Your task to perform on an android device: How much does a 2 bedroom apartment rent for in Philadelphia? Image 0: 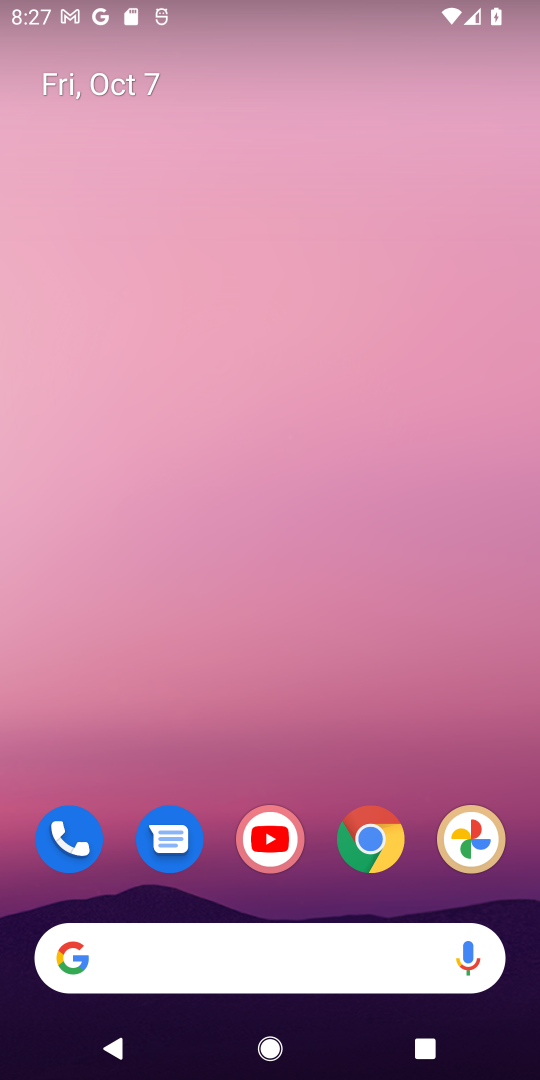
Step 0: click (373, 834)
Your task to perform on an android device: How much does a 2 bedroom apartment rent for in Philadelphia? Image 1: 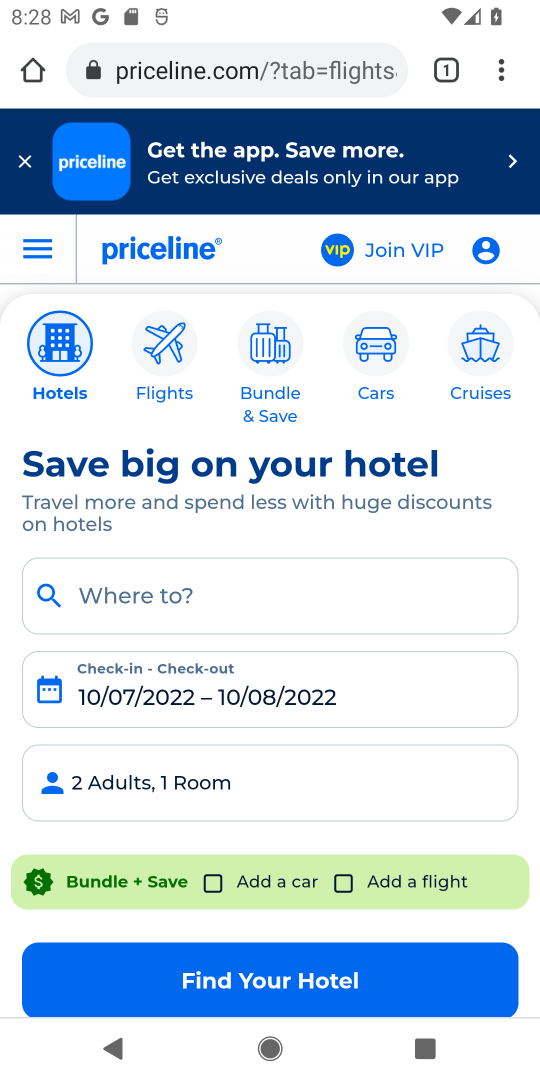
Step 1: click (222, 68)
Your task to perform on an android device: How much does a 2 bedroom apartment rent for in Philadelphia? Image 2: 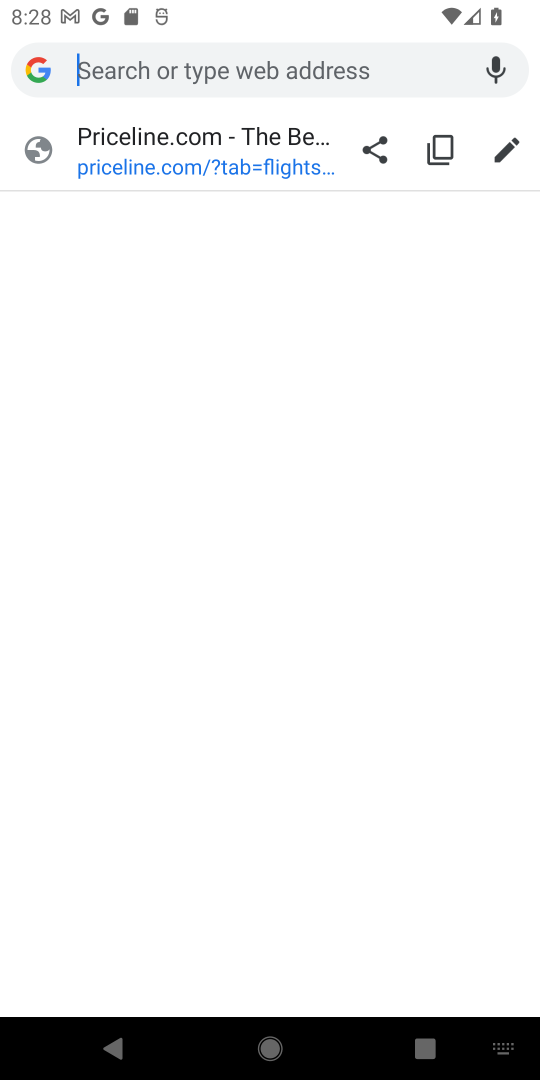
Step 2: type "2 bedroom apartment rent for in philadelphia"
Your task to perform on an android device: How much does a 2 bedroom apartment rent for in Philadelphia? Image 3: 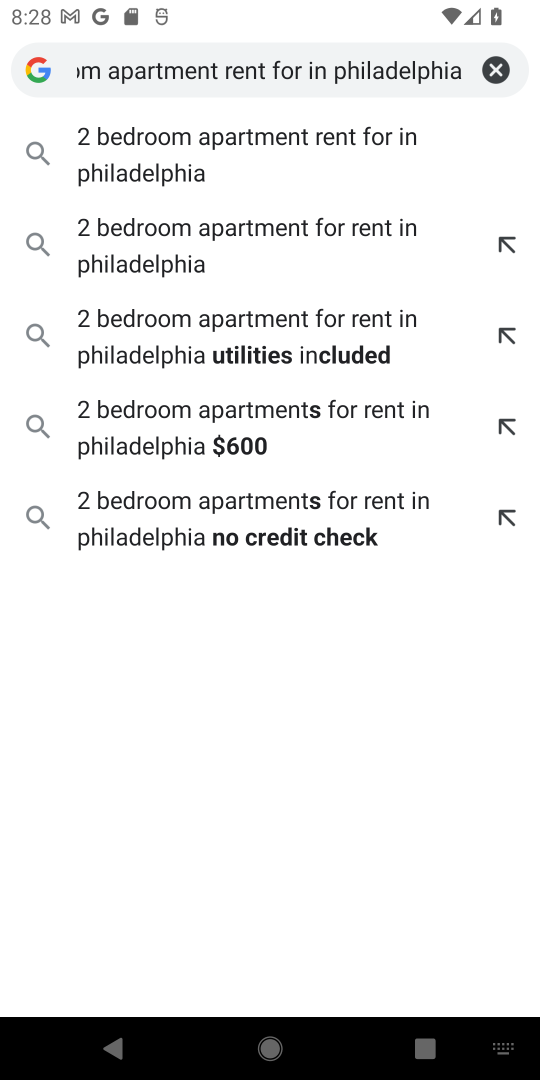
Step 3: click (132, 167)
Your task to perform on an android device: How much does a 2 bedroom apartment rent for in Philadelphia? Image 4: 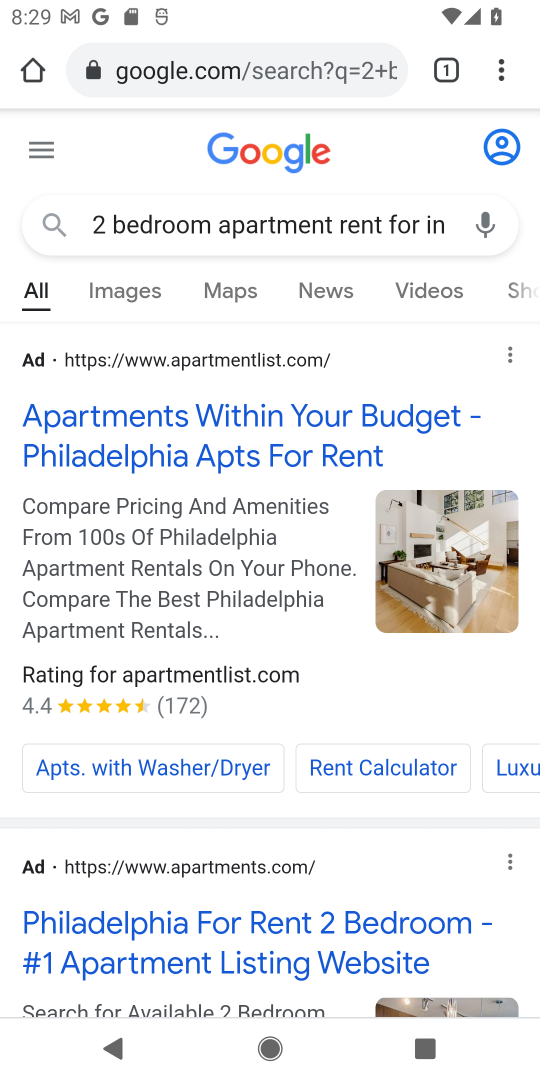
Step 4: click (140, 915)
Your task to perform on an android device: How much does a 2 bedroom apartment rent for in Philadelphia? Image 5: 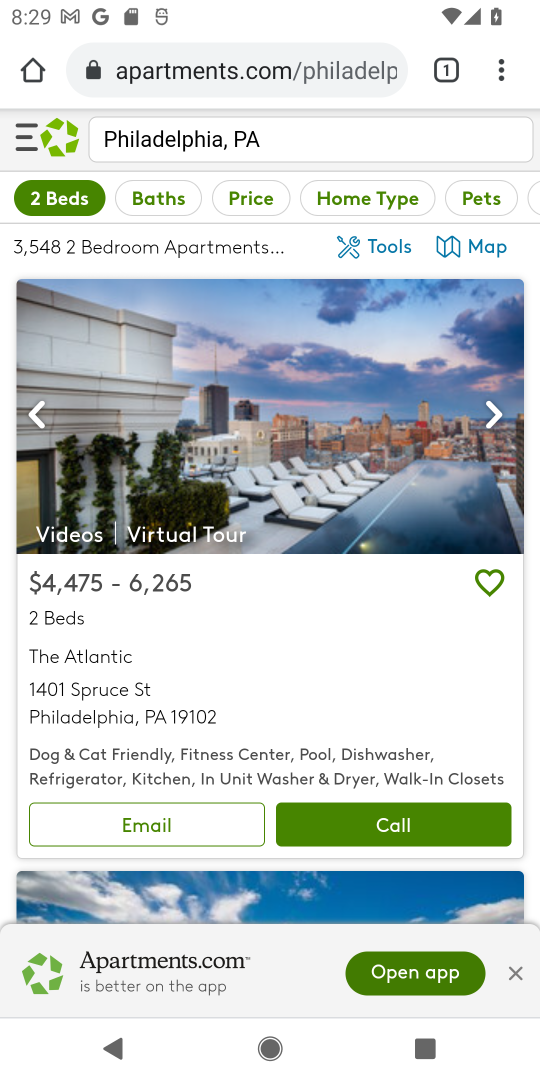
Step 5: drag from (351, 595) to (424, 256)
Your task to perform on an android device: How much does a 2 bedroom apartment rent for in Philadelphia? Image 6: 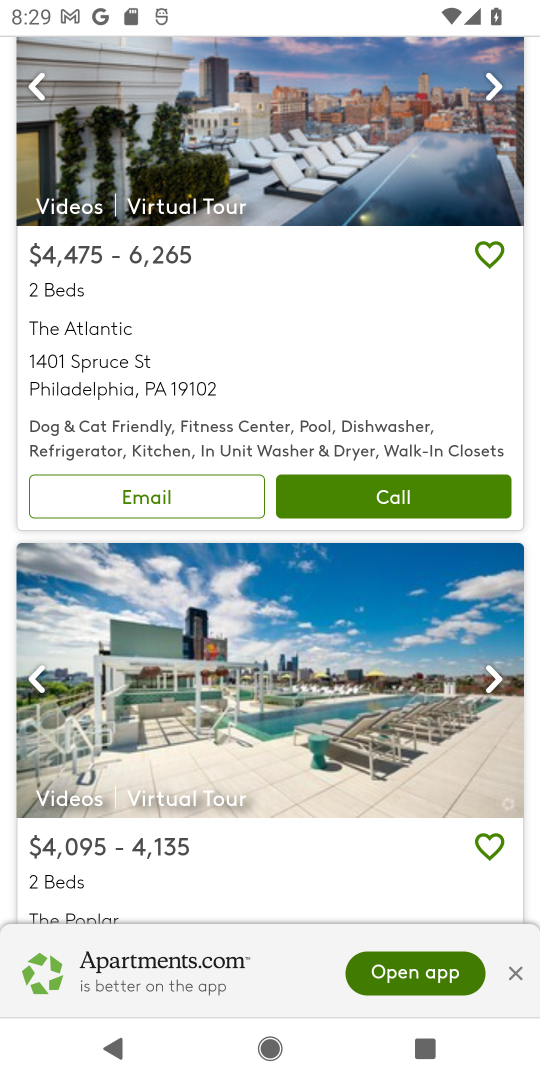
Step 6: drag from (199, 742) to (302, 238)
Your task to perform on an android device: How much does a 2 bedroom apartment rent for in Philadelphia? Image 7: 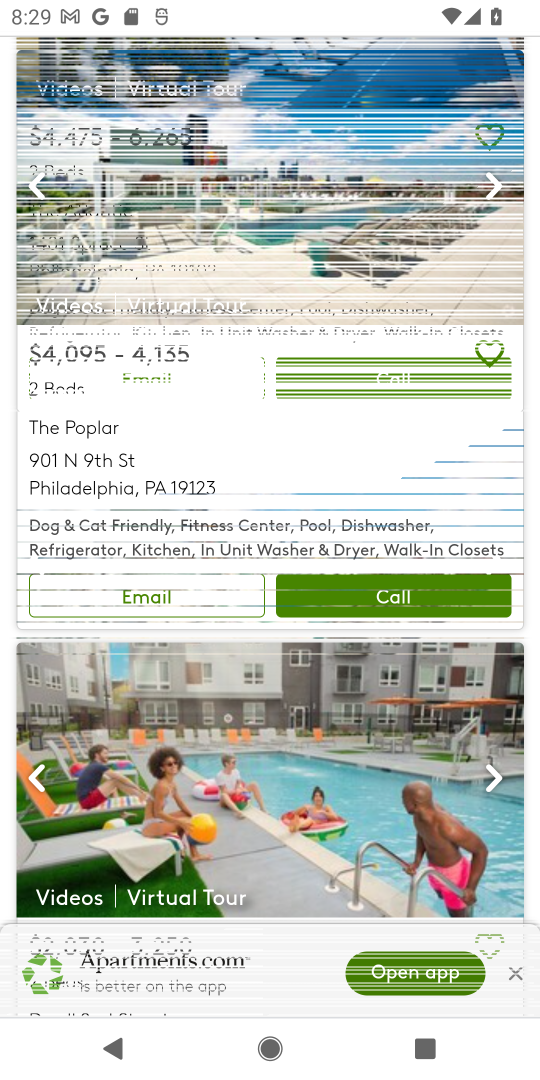
Step 7: drag from (171, 705) to (260, 366)
Your task to perform on an android device: How much does a 2 bedroom apartment rent for in Philadelphia? Image 8: 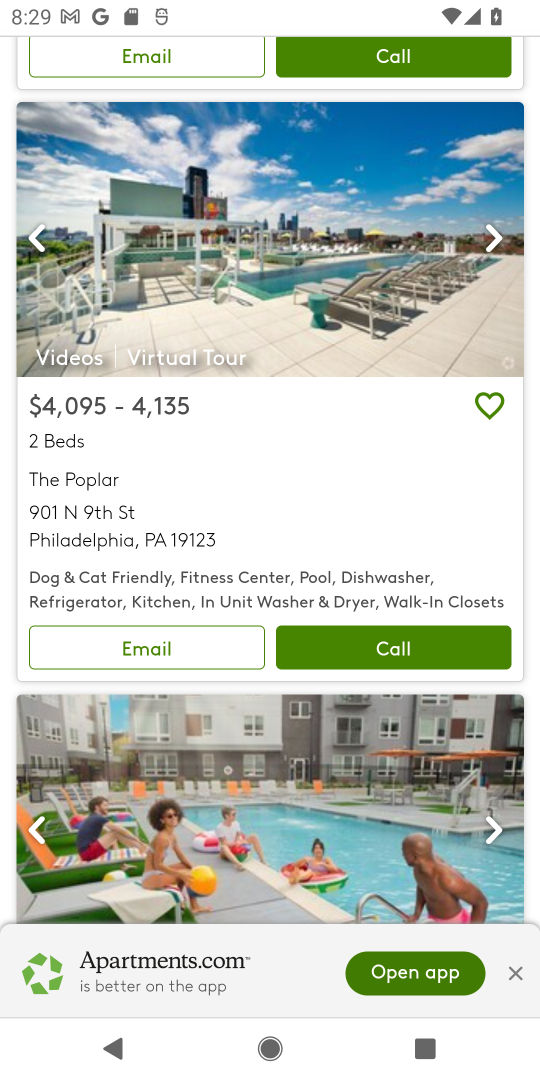
Step 8: drag from (190, 777) to (365, 252)
Your task to perform on an android device: How much does a 2 bedroom apartment rent for in Philadelphia? Image 9: 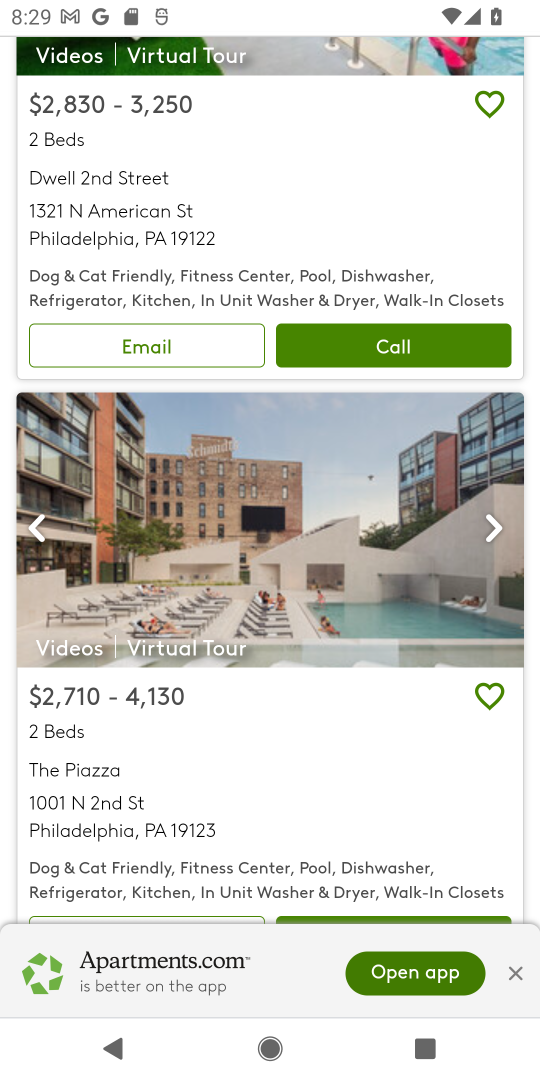
Step 9: drag from (98, 822) to (251, 340)
Your task to perform on an android device: How much does a 2 bedroom apartment rent for in Philadelphia? Image 10: 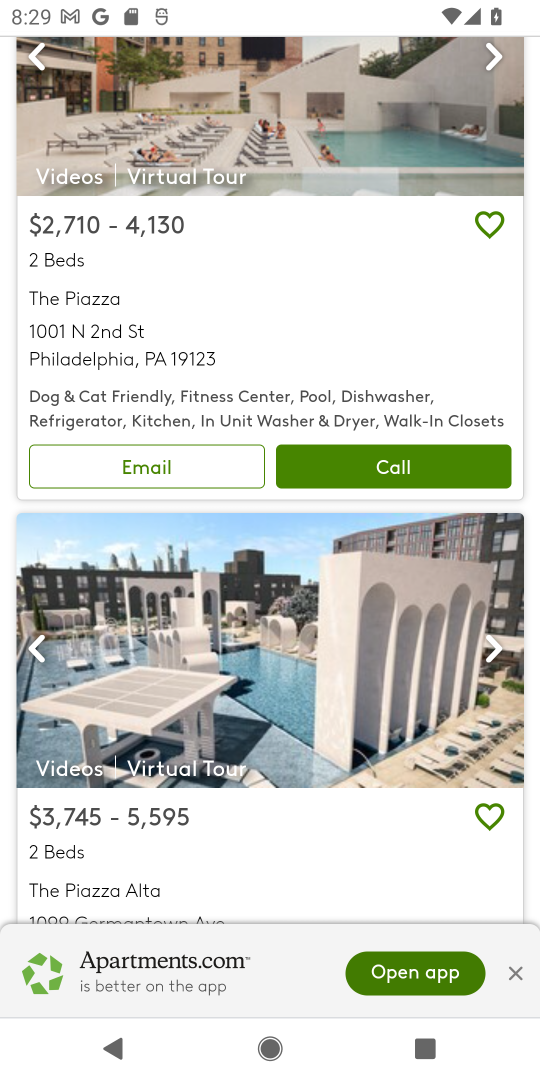
Step 10: click (516, 973)
Your task to perform on an android device: How much does a 2 bedroom apartment rent for in Philadelphia? Image 11: 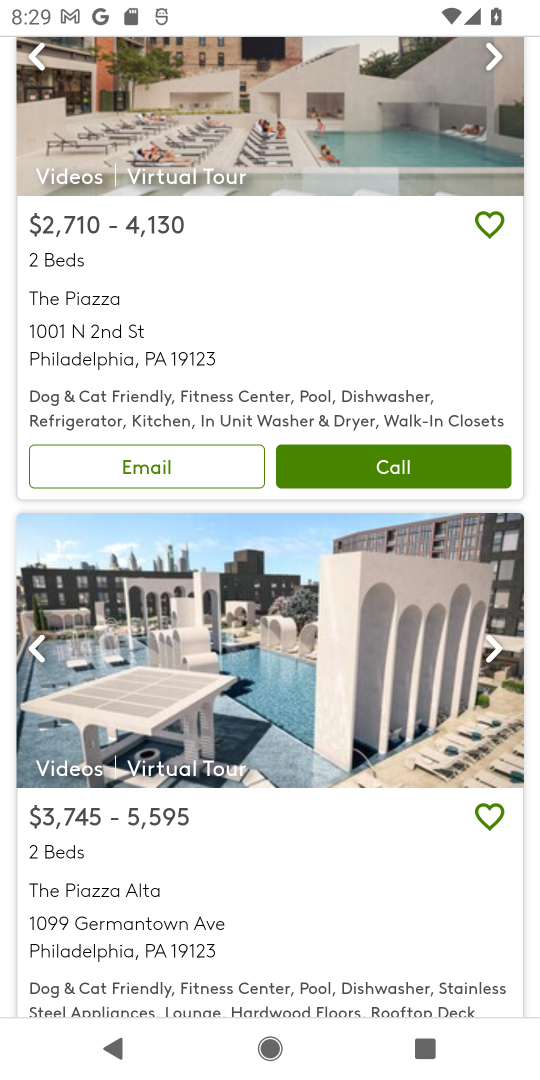
Step 11: task complete